Your task to perform on an android device: toggle javascript in the chrome app Image 0: 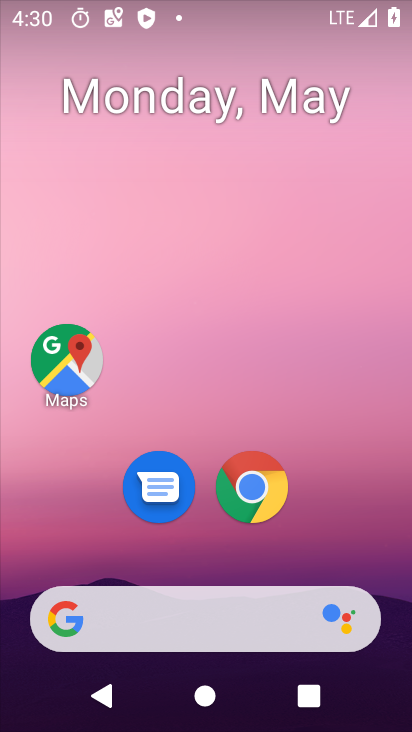
Step 0: click (257, 496)
Your task to perform on an android device: toggle javascript in the chrome app Image 1: 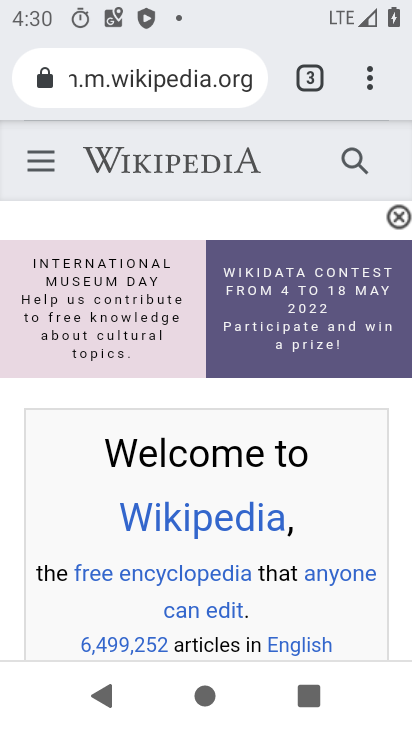
Step 1: click (373, 78)
Your task to perform on an android device: toggle javascript in the chrome app Image 2: 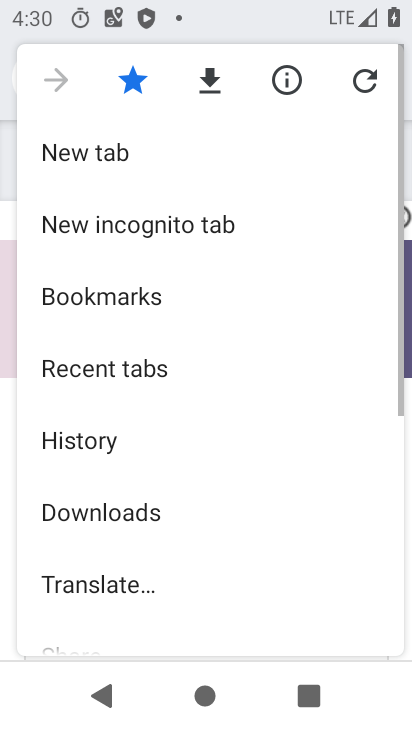
Step 2: drag from (175, 521) to (201, 104)
Your task to perform on an android device: toggle javascript in the chrome app Image 3: 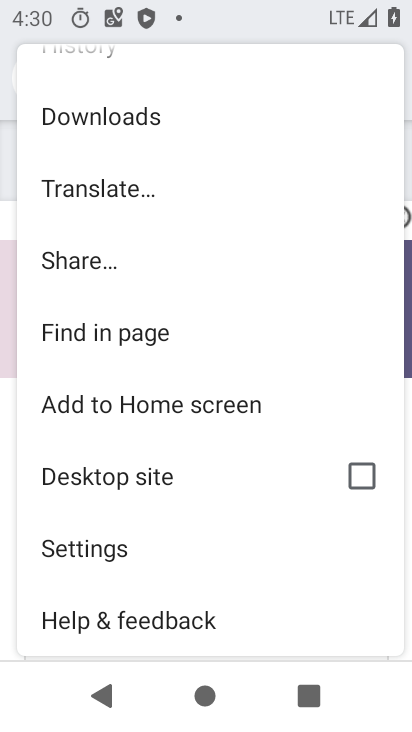
Step 3: click (97, 540)
Your task to perform on an android device: toggle javascript in the chrome app Image 4: 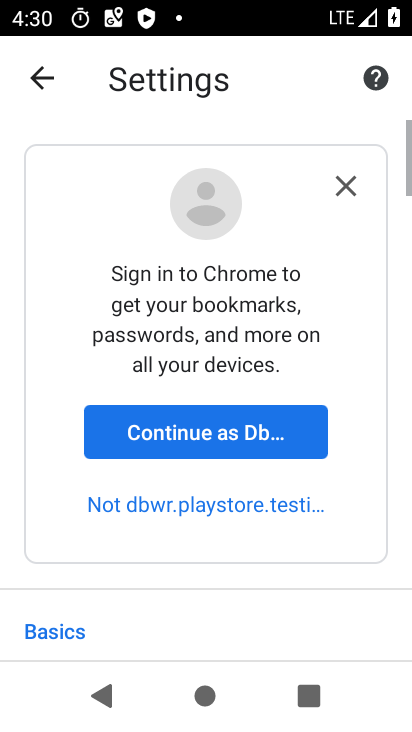
Step 4: drag from (224, 524) to (229, 144)
Your task to perform on an android device: toggle javascript in the chrome app Image 5: 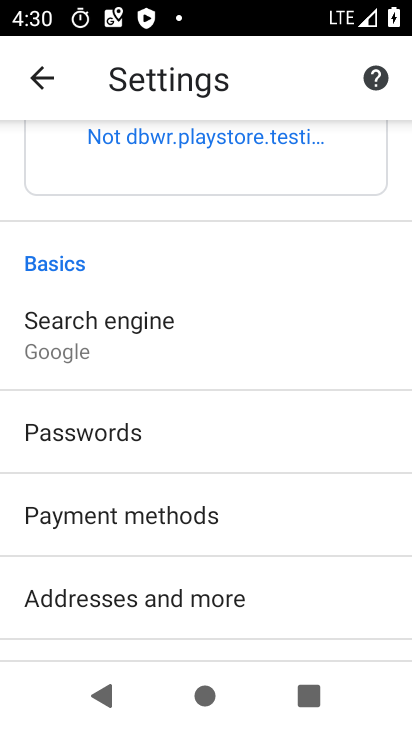
Step 5: drag from (192, 460) to (188, 102)
Your task to perform on an android device: toggle javascript in the chrome app Image 6: 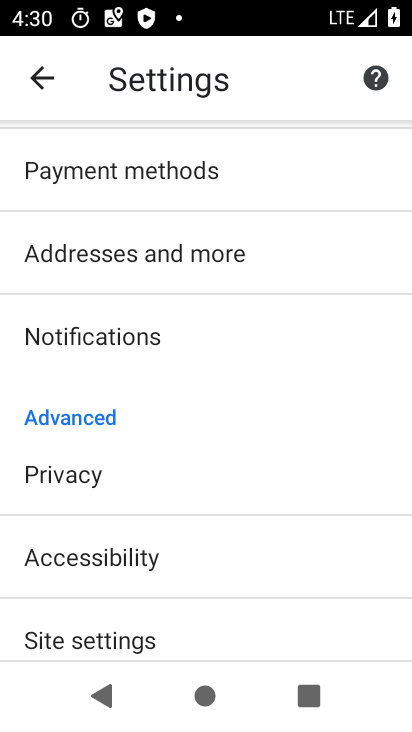
Step 6: drag from (163, 489) to (171, 237)
Your task to perform on an android device: toggle javascript in the chrome app Image 7: 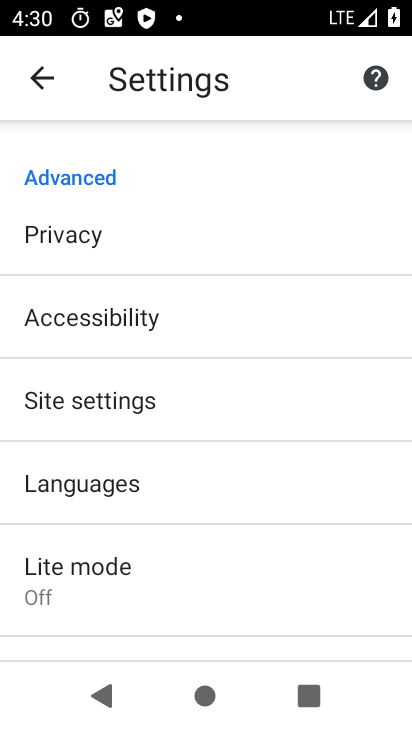
Step 7: click (108, 406)
Your task to perform on an android device: toggle javascript in the chrome app Image 8: 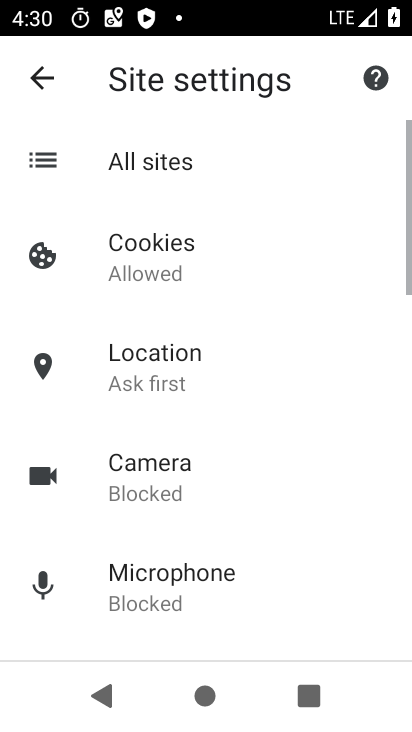
Step 8: drag from (219, 527) to (226, 170)
Your task to perform on an android device: toggle javascript in the chrome app Image 9: 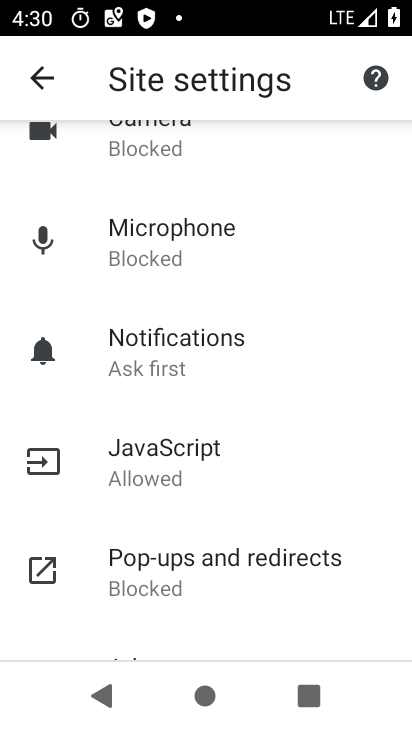
Step 9: click (163, 460)
Your task to perform on an android device: toggle javascript in the chrome app Image 10: 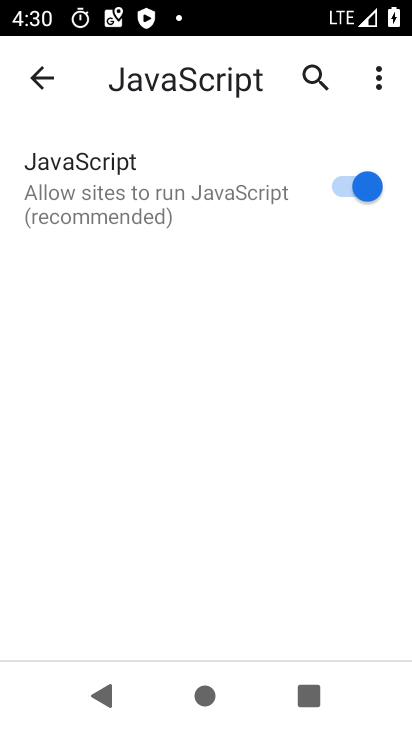
Step 10: click (376, 199)
Your task to perform on an android device: toggle javascript in the chrome app Image 11: 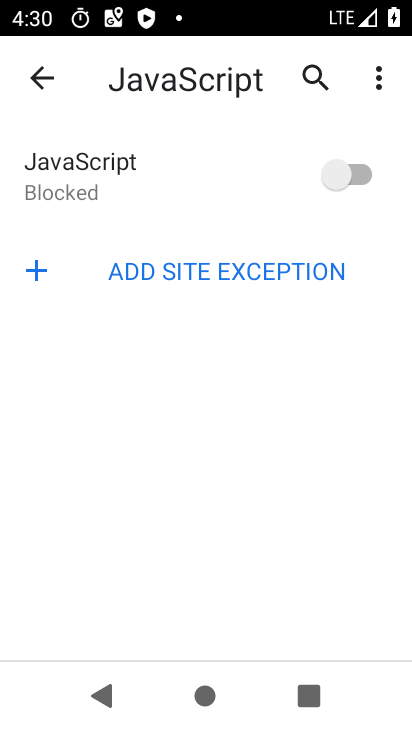
Step 11: task complete